Your task to perform on an android device: change notification settings in the gmail app Image 0: 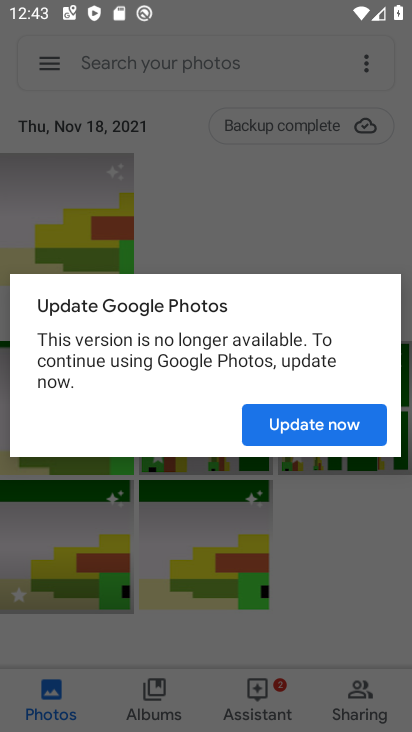
Step 0: press back button
Your task to perform on an android device: change notification settings in the gmail app Image 1: 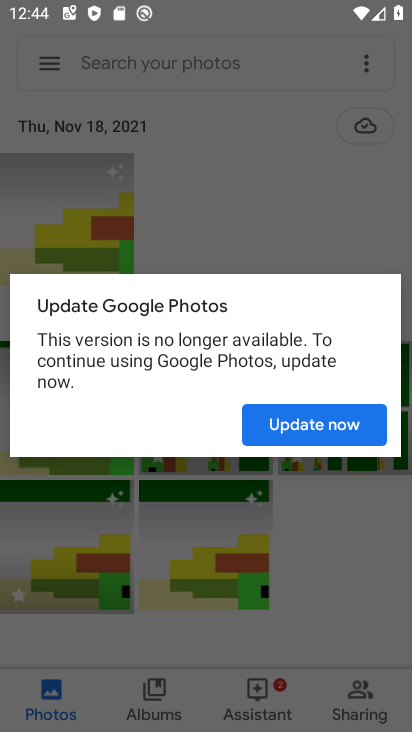
Step 1: press back button
Your task to perform on an android device: change notification settings in the gmail app Image 2: 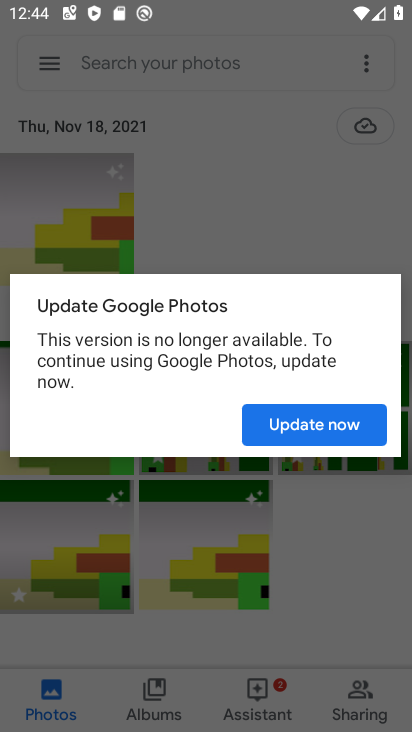
Step 2: press back button
Your task to perform on an android device: change notification settings in the gmail app Image 3: 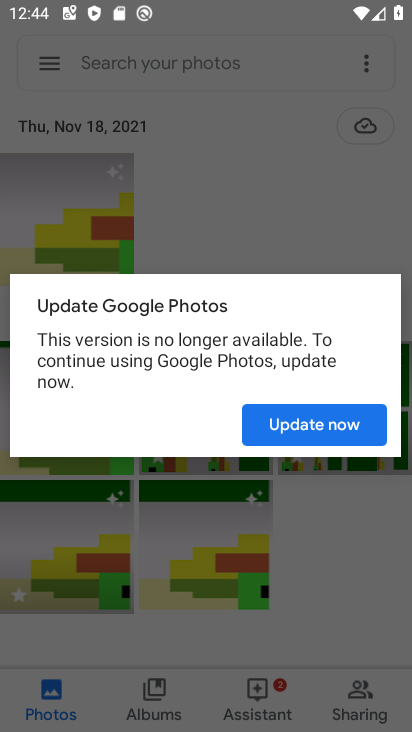
Step 3: press home button
Your task to perform on an android device: change notification settings in the gmail app Image 4: 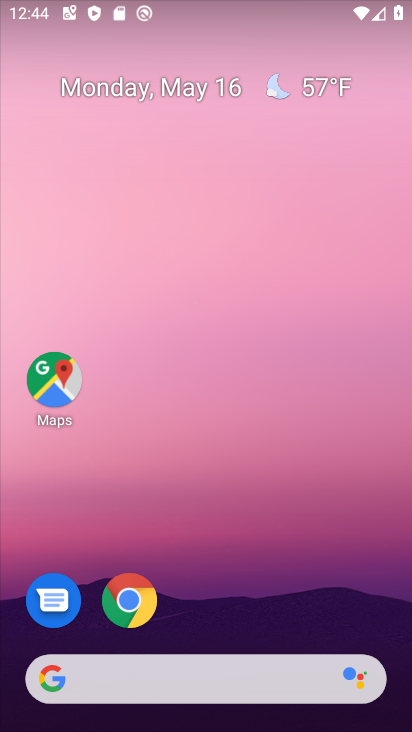
Step 4: drag from (159, 615) to (253, 128)
Your task to perform on an android device: change notification settings in the gmail app Image 5: 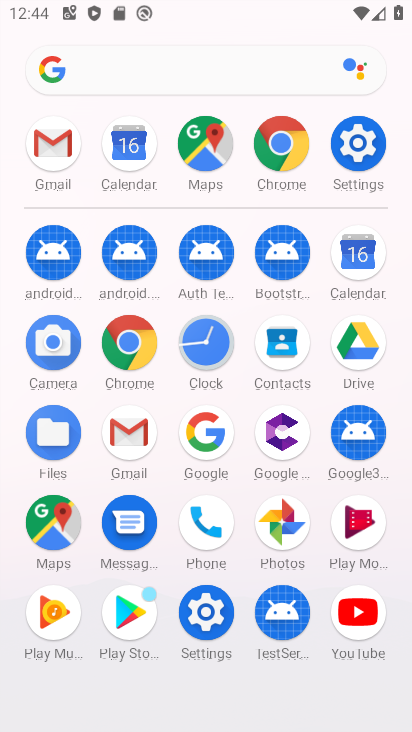
Step 5: click (52, 147)
Your task to perform on an android device: change notification settings in the gmail app Image 6: 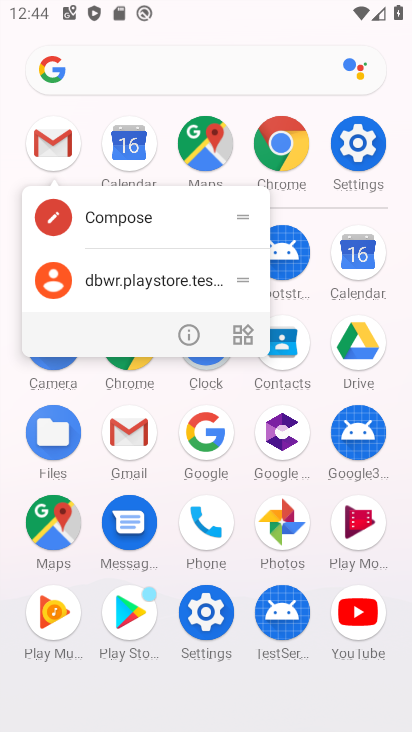
Step 6: click (191, 325)
Your task to perform on an android device: change notification settings in the gmail app Image 7: 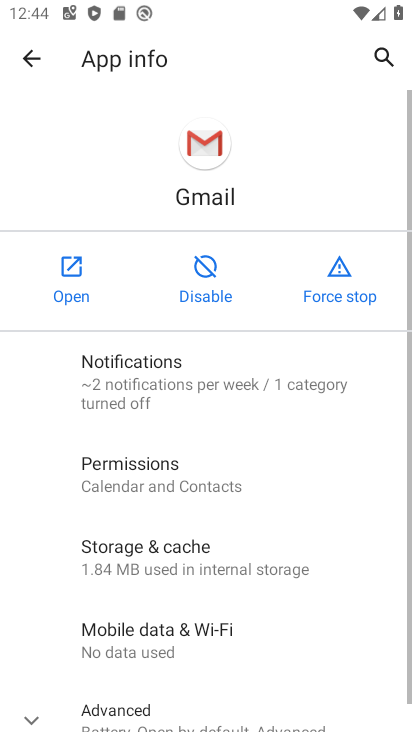
Step 7: click (163, 377)
Your task to perform on an android device: change notification settings in the gmail app Image 8: 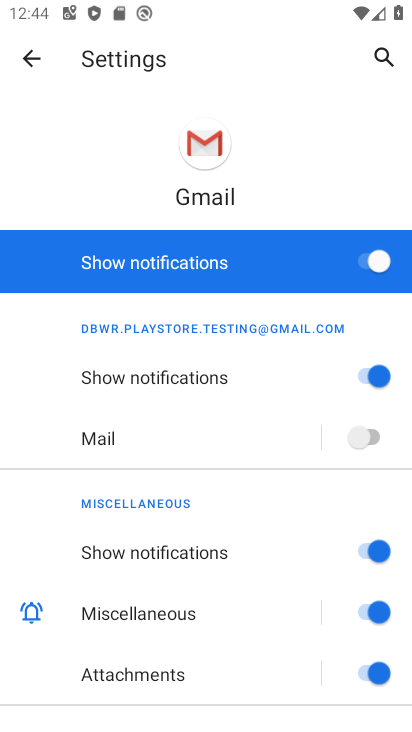
Step 8: click (372, 554)
Your task to perform on an android device: change notification settings in the gmail app Image 9: 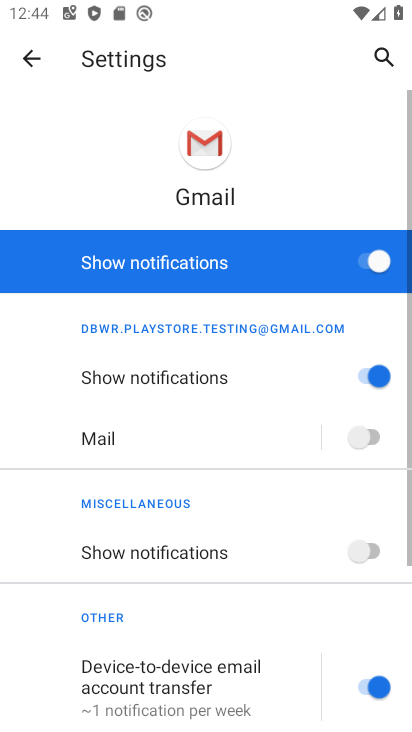
Step 9: task complete